Your task to perform on an android device: Open CNN.com Image 0: 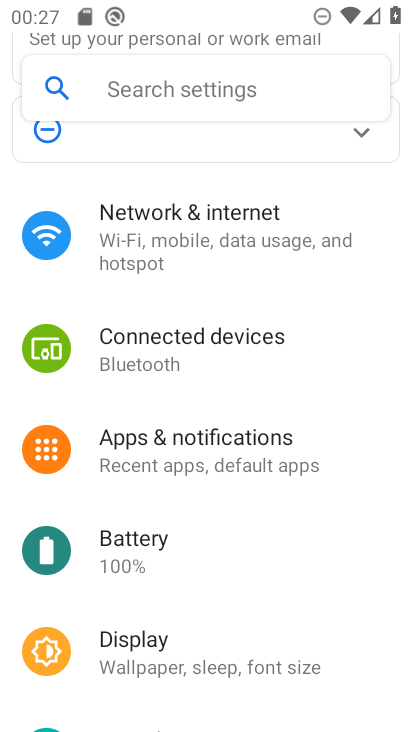
Step 0: press home button
Your task to perform on an android device: Open CNN.com Image 1: 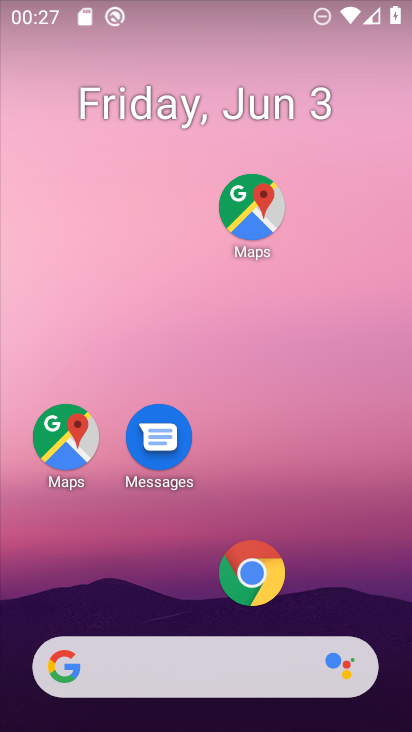
Step 1: click (261, 556)
Your task to perform on an android device: Open CNN.com Image 2: 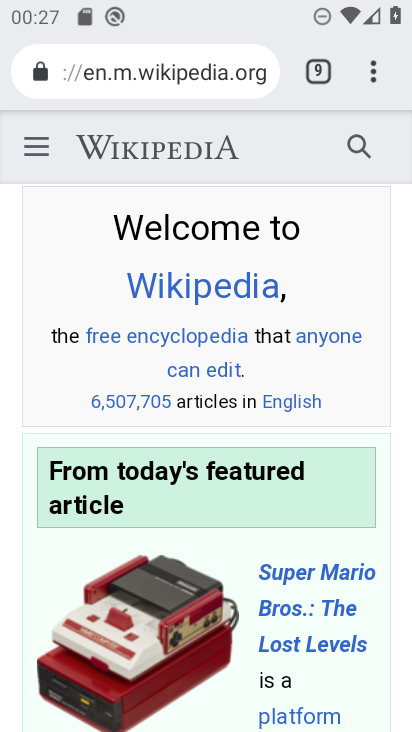
Step 2: click (318, 61)
Your task to perform on an android device: Open CNN.com Image 3: 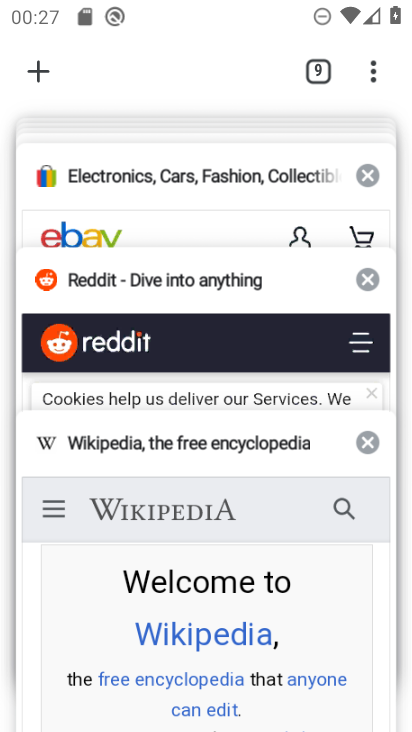
Step 3: drag from (237, 176) to (196, 449)
Your task to perform on an android device: Open CNN.com Image 4: 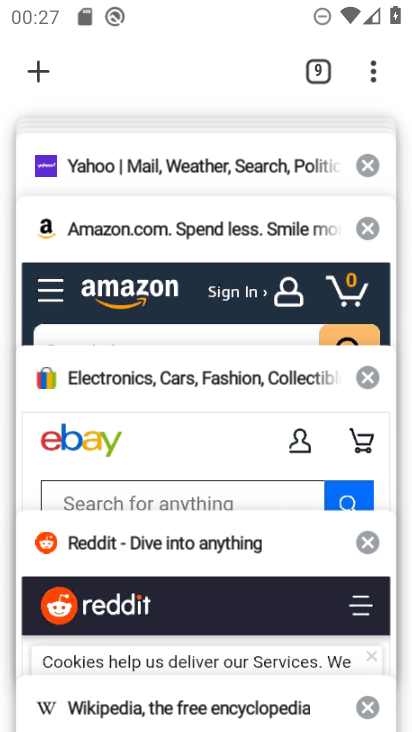
Step 4: drag from (224, 160) to (251, 575)
Your task to perform on an android device: Open CNN.com Image 5: 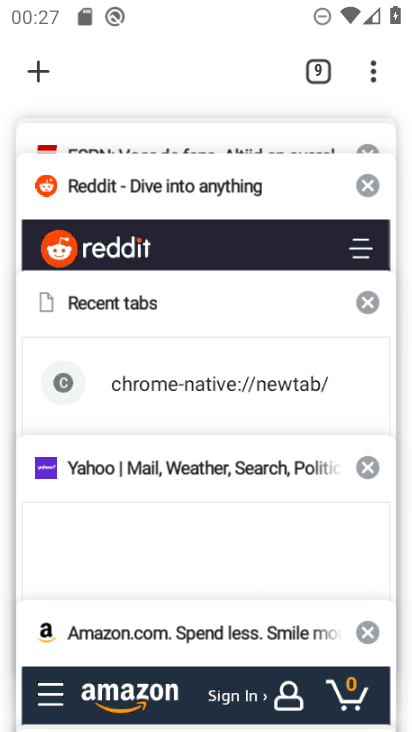
Step 5: drag from (231, 187) to (210, 532)
Your task to perform on an android device: Open CNN.com Image 6: 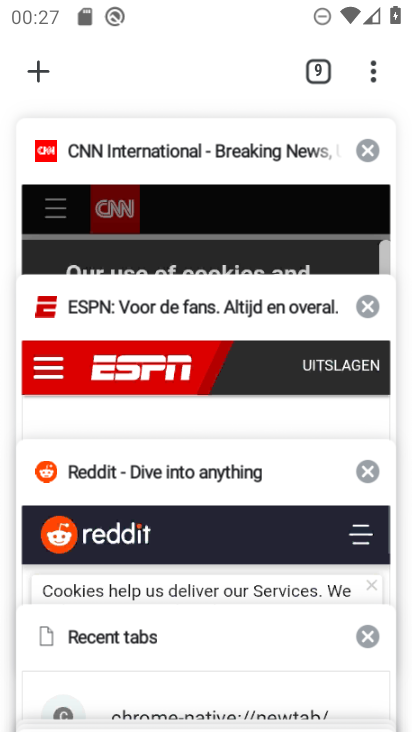
Step 6: click (176, 157)
Your task to perform on an android device: Open CNN.com Image 7: 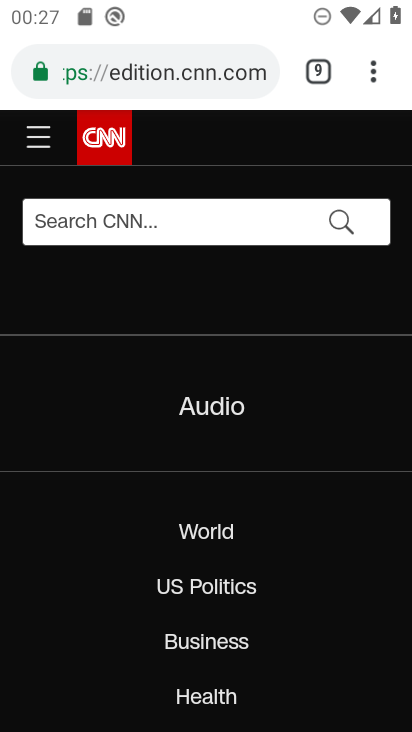
Step 7: task complete